Your task to perform on an android device: manage bookmarks in the chrome app Image 0: 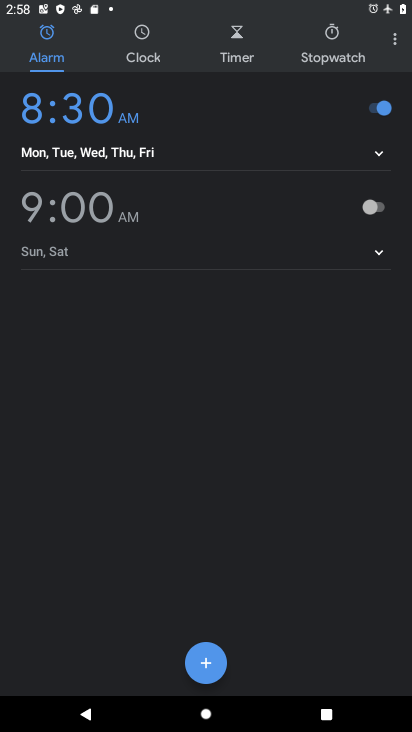
Step 0: press home button
Your task to perform on an android device: manage bookmarks in the chrome app Image 1: 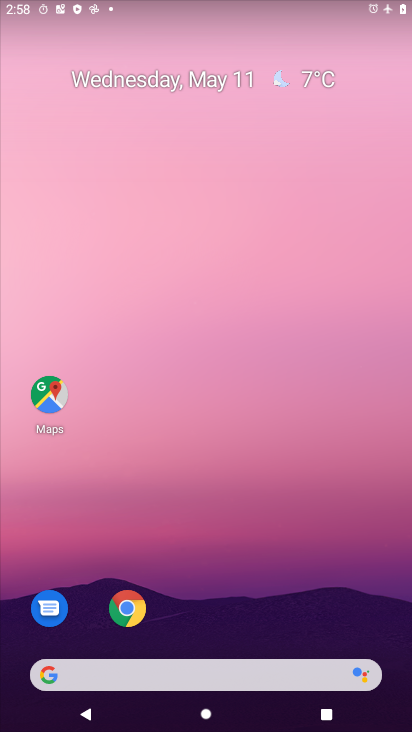
Step 1: click (129, 613)
Your task to perform on an android device: manage bookmarks in the chrome app Image 2: 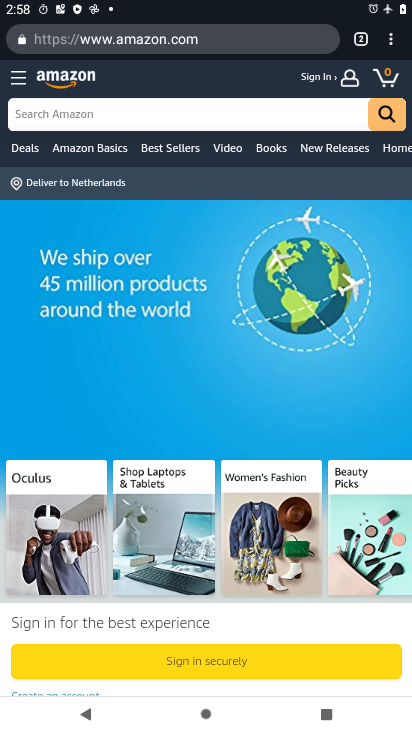
Step 2: click (385, 40)
Your task to perform on an android device: manage bookmarks in the chrome app Image 3: 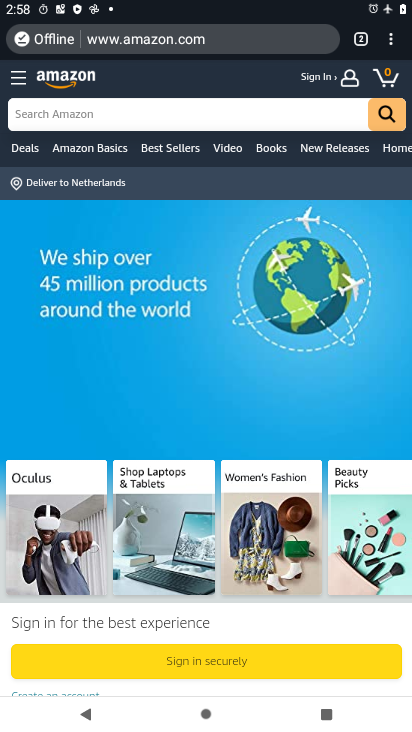
Step 3: click (385, 37)
Your task to perform on an android device: manage bookmarks in the chrome app Image 4: 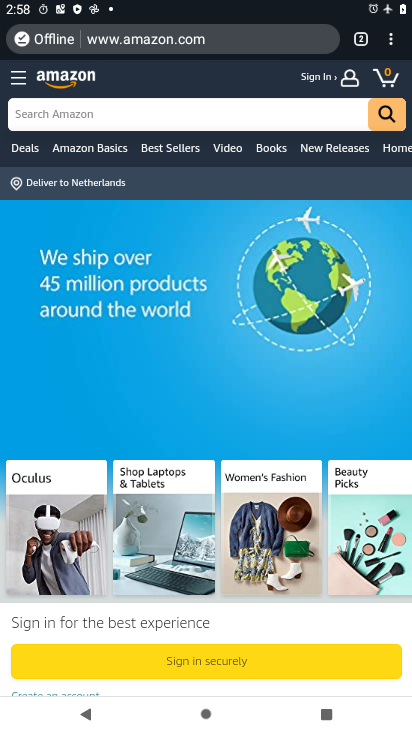
Step 4: click (385, 37)
Your task to perform on an android device: manage bookmarks in the chrome app Image 5: 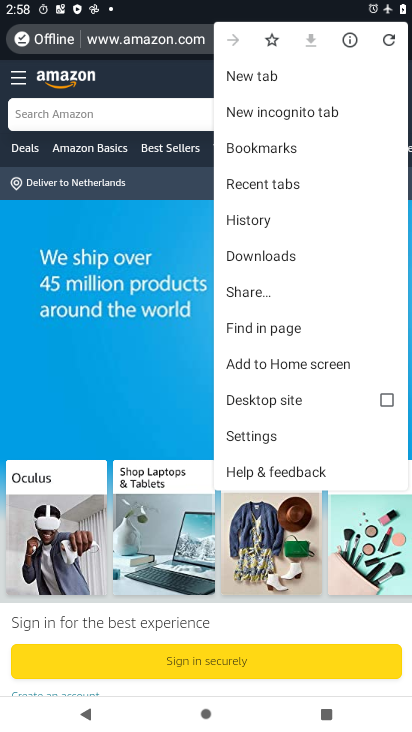
Step 5: click (259, 151)
Your task to perform on an android device: manage bookmarks in the chrome app Image 6: 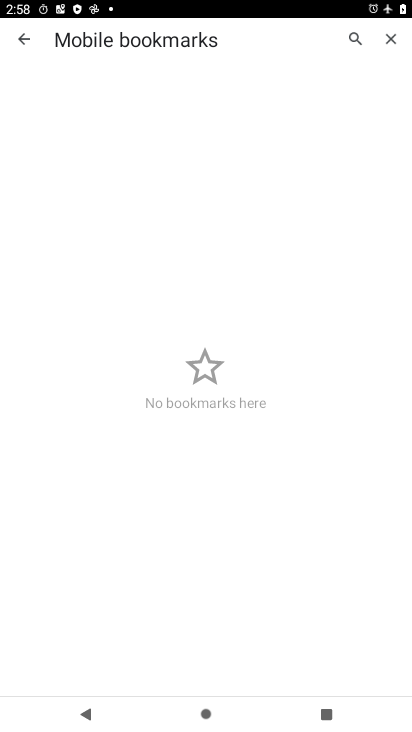
Step 6: task complete